Your task to perform on an android device: What is the recent news? Image 0: 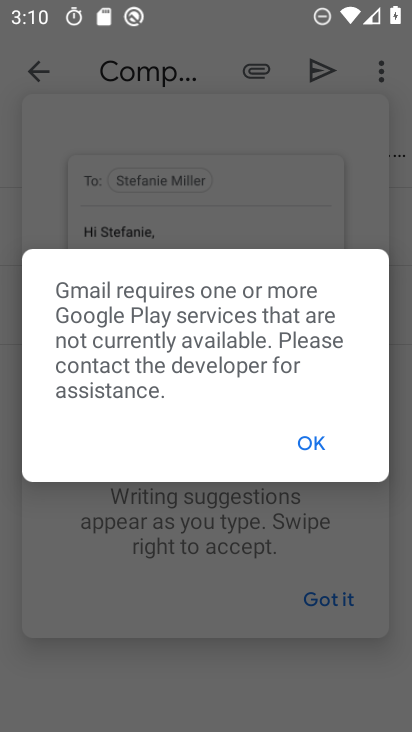
Step 0: press home button
Your task to perform on an android device: What is the recent news? Image 1: 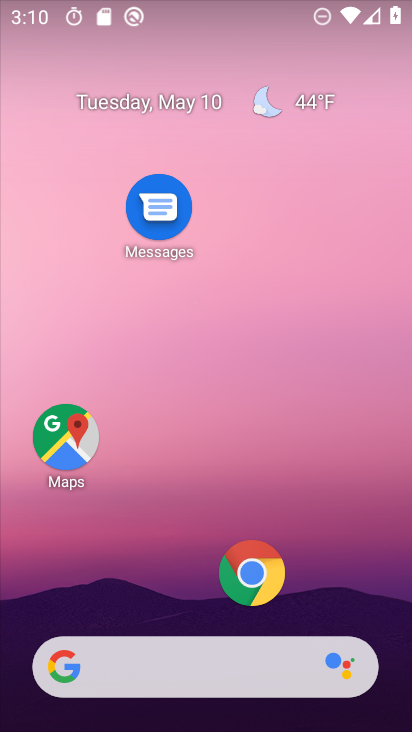
Step 1: drag from (192, 607) to (241, 92)
Your task to perform on an android device: What is the recent news? Image 2: 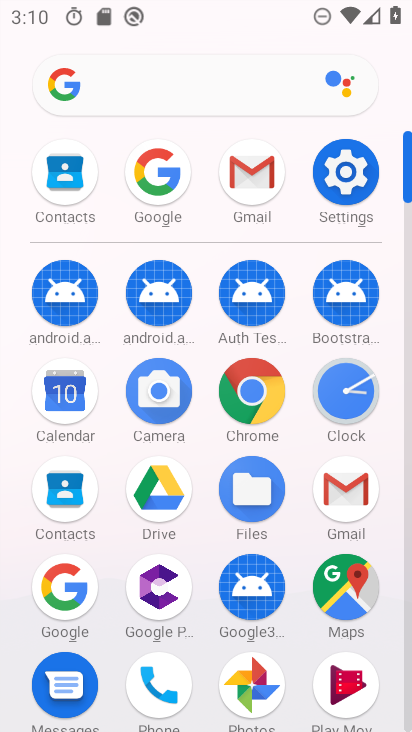
Step 2: click (81, 591)
Your task to perform on an android device: What is the recent news? Image 3: 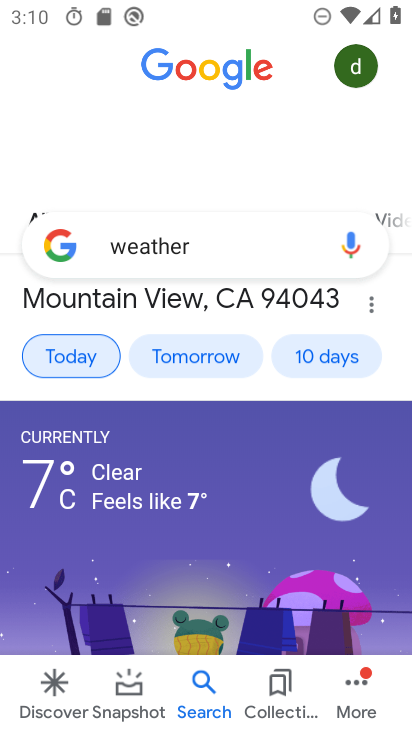
Step 3: click (297, 248)
Your task to perform on an android device: What is the recent news? Image 4: 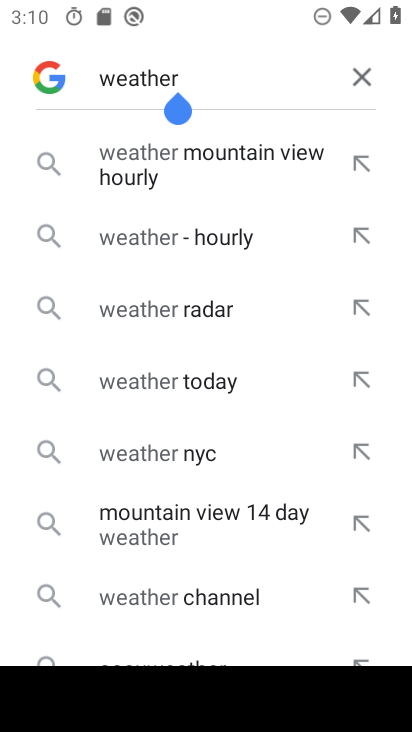
Step 4: click (362, 77)
Your task to perform on an android device: What is the recent news? Image 5: 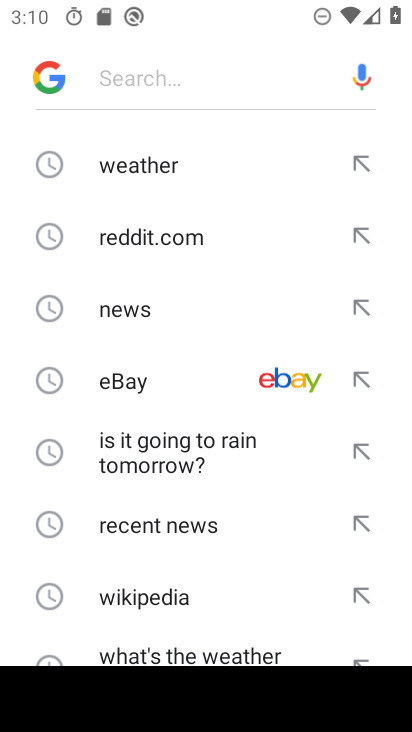
Step 5: type "recent news"
Your task to perform on an android device: What is the recent news? Image 6: 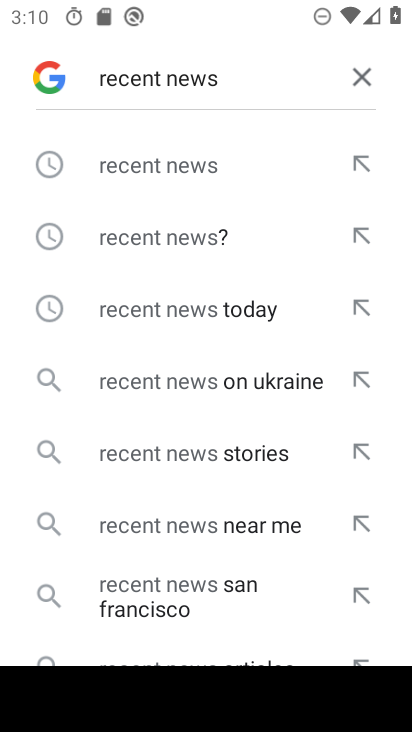
Step 6: click (212, 175)
Your task to perform on an android device: What is the recent news? Image 7: 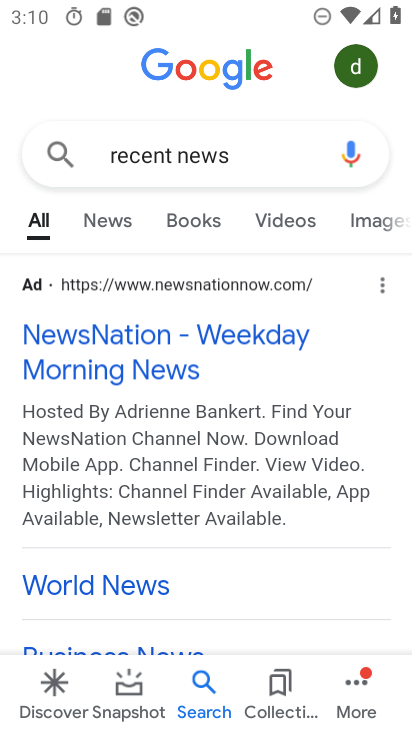
Step 7: click (99, 220)
Your task to perform on an android device: What is the recent news? Image 8: 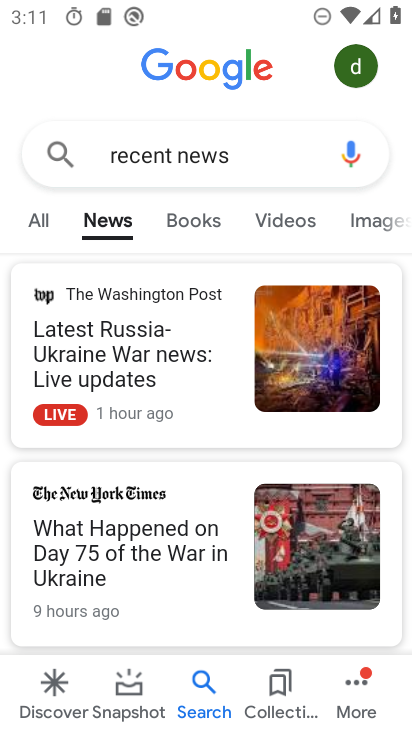
Step 8: task complete